Your task to perform on an android device: open a new tab in the chrome app Image 0: 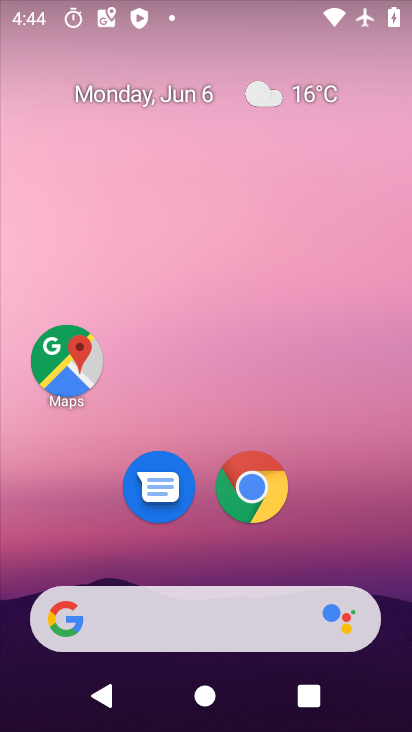
Step 0: drag from (344, 521) to (340, 95)
Your task to perform on an android device: open a new tab in the chrome app Image 1: 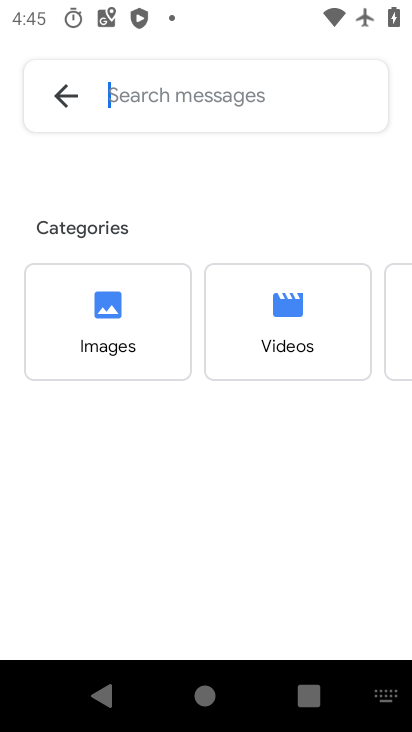
Step 1: press home button
Your task to perform on an android device: open a new tab in the chrome app Image 2: 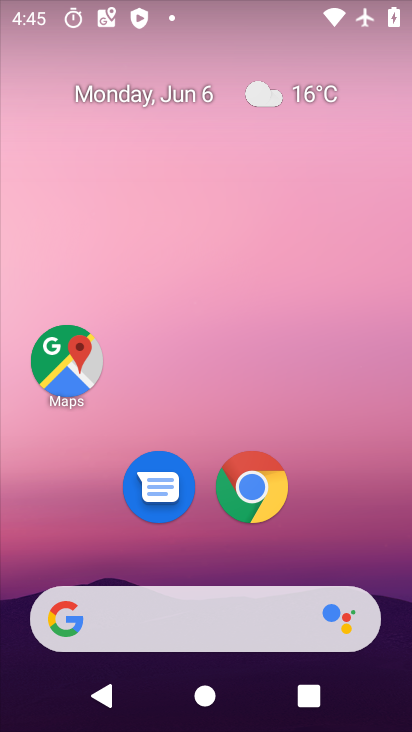
Step 2: click (249, 504)
Your task to perform on an android device: open a new tab in the chrome app Image 3: 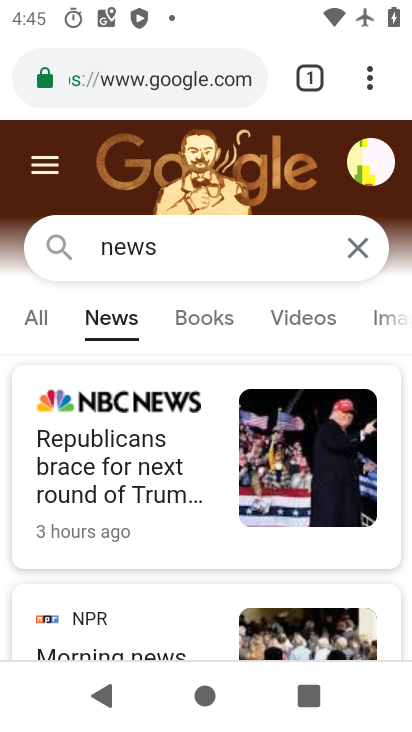
Step 3: task complete